Your task to perform on an android device: delete the emails in spam in the gmail app Image 0: 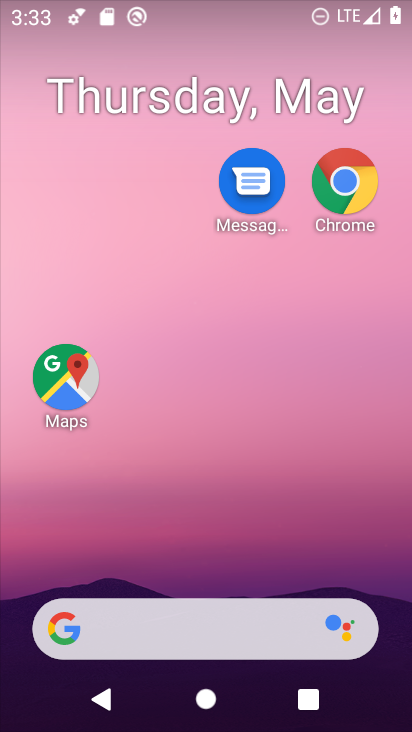
Step 0: drag from (138, 590) to (163, 61)
Your task to perform on an android device: delete the emails in spam in the gmail app Image 1: 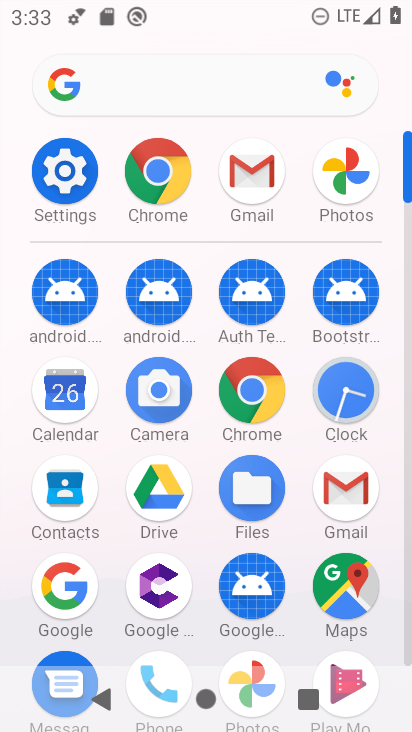
Step 1: click (256, 193)
Your task to perform on an android device: delete the emails in spam in the gmail app Image 2: 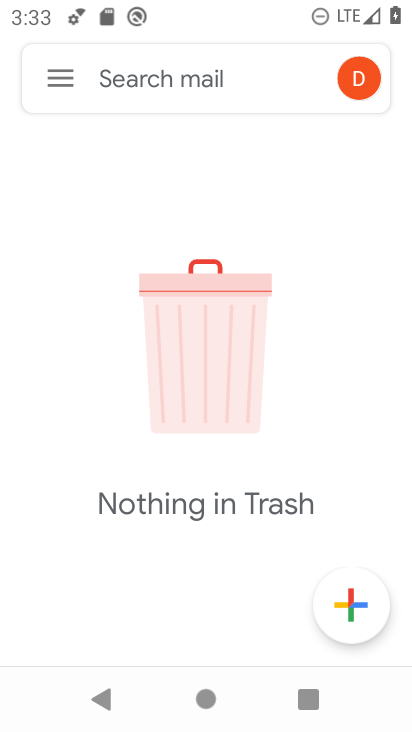
Step 2: click (57, 82)
Your task to perform on an android device: delete the emails in spam in the gmail app Image 3: 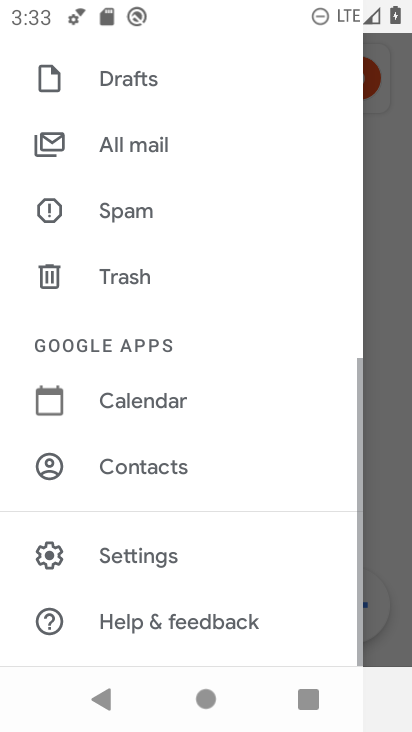
Step 3: click (143, 211)
Your task to perform on an android device: delete the emails in spam in the gmail app Image 4: 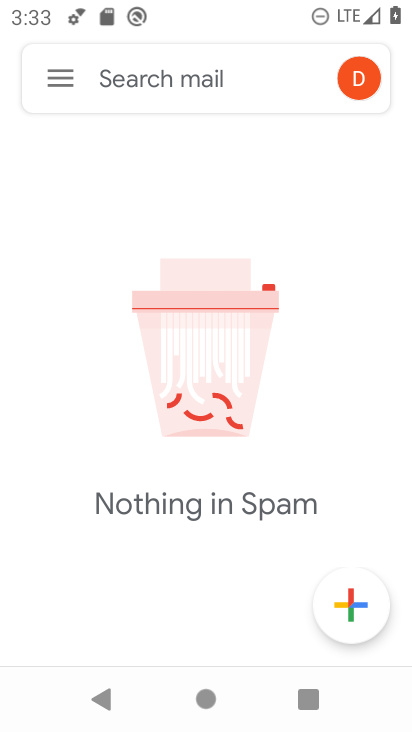
Step 4: task complete